Your task to perform on an android device: Go to wifi settings Image 0: 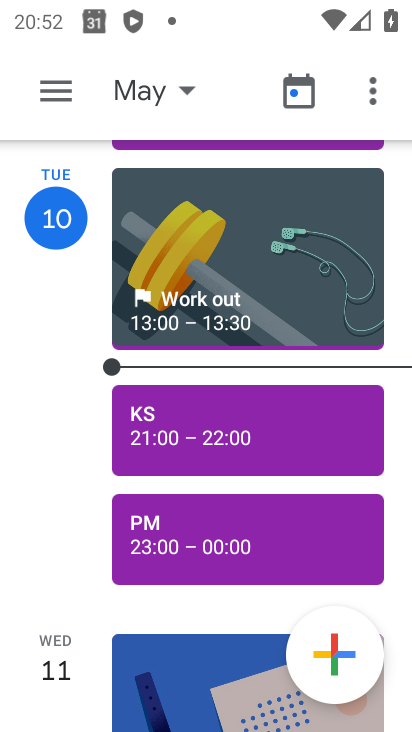
Step 0: press home button
Your task to perform on an android device: Go to wifi settings Image 1: 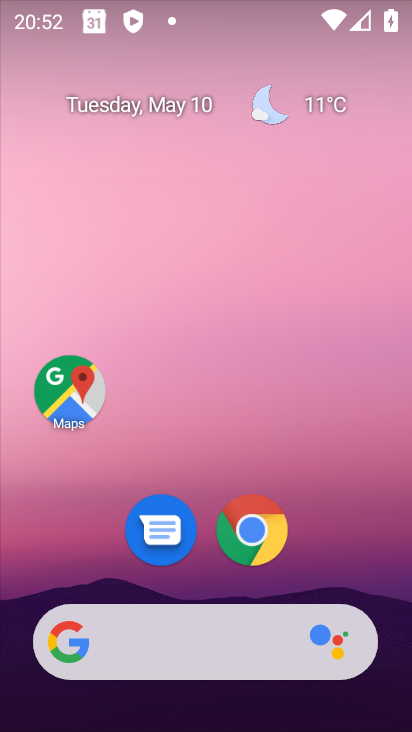
Step 1: drag from (322, 556) to (361, 184)
Your task to perform on an android device: Go to wifi settings Image 2: 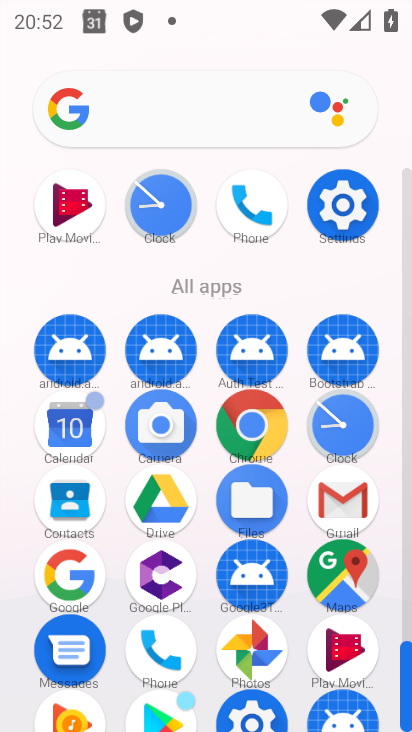
Step 2: click (360, 219)
Your task to perform on an android device: Go to wifi settings Image 3: 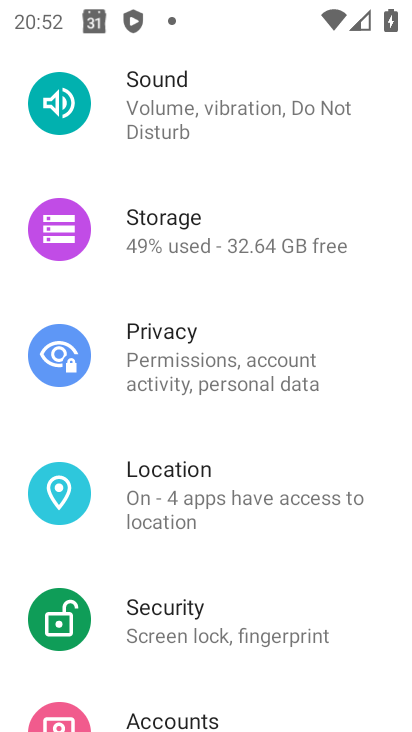
Step 3: drag from (290, 268) to (280, 631)
Your task to perform on an android device: Go to wifi settings Image 4: 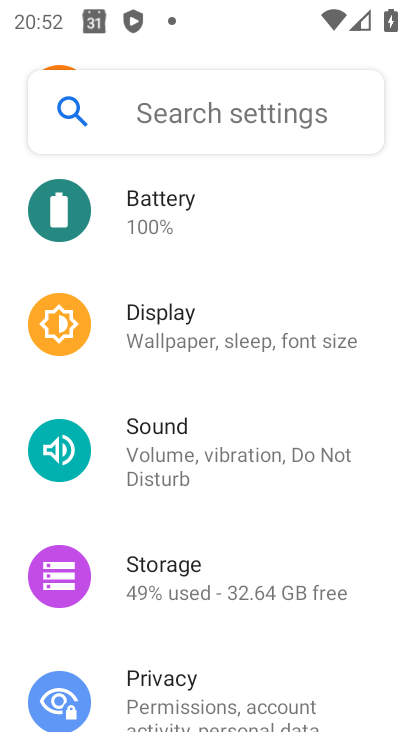
Step 4: drag from (262, 233) to (281, 691)
Your task to perform on an android device: Go to wifi settings Image 5: 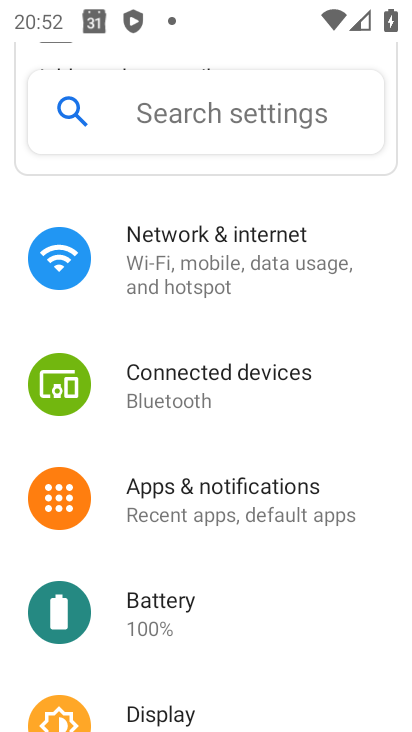
Step 5: click (277, 285)
Your task to perform on an android device: Go to wifi settings Image 6: 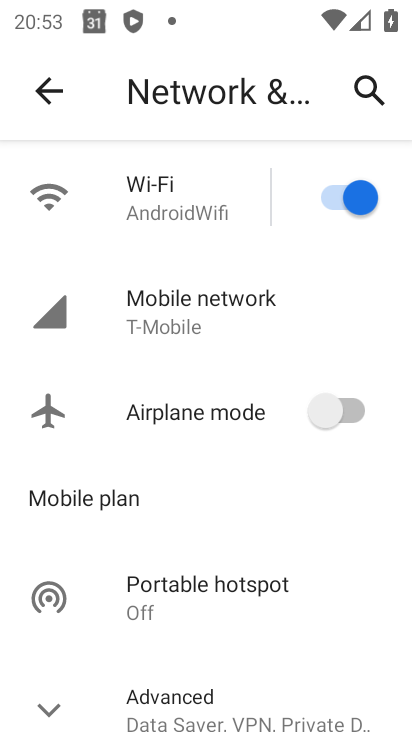
Step 6: click (199, 206)
Your task to perform on an android device: Go to wifi settings Image 7: 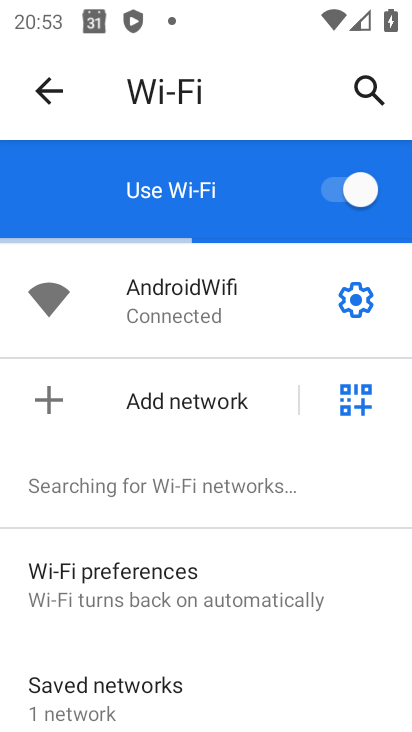
Step 7: task complete